Your task to perform on an android device: Toggle the flashlight Image 0: 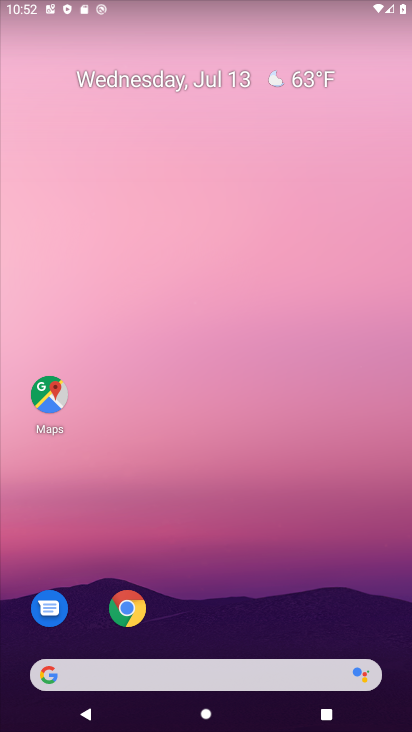
Step 0: press home button
Your task to perform on an android device: Toggle the flashlight Image 1: 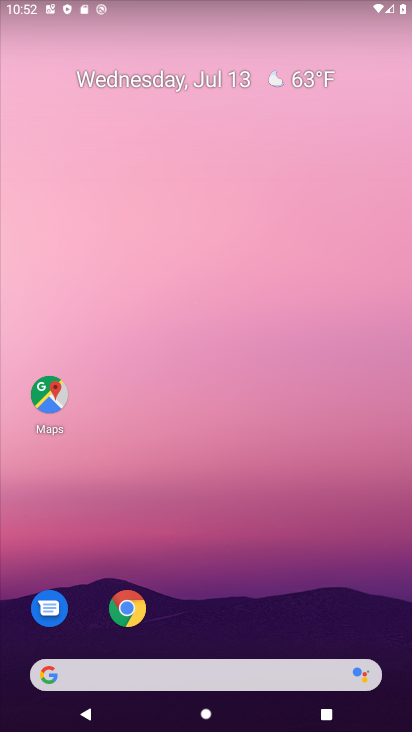
Step 1: task complete